Your task to perform on an android device: Open maps Image 0: 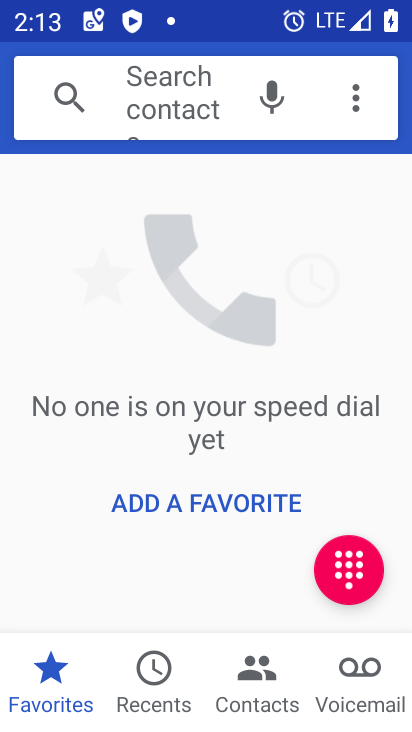
Step 0: drag from (221, 606) to (215, 349)
Your task to perform on an android device: Open maps Image 1: 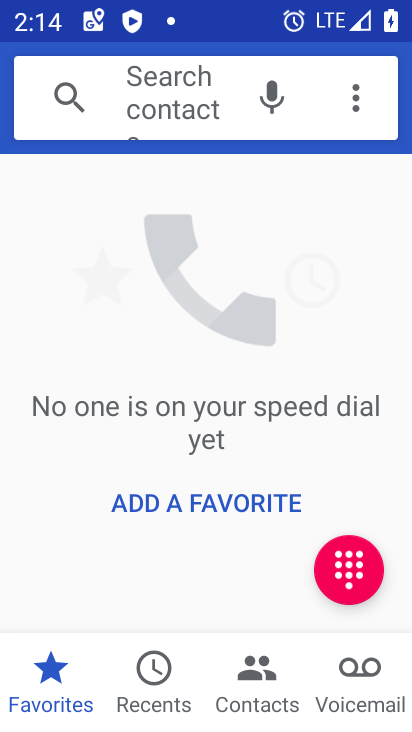
Step 1: press home button
Your task to perform on an android device: Open maps Image 2: 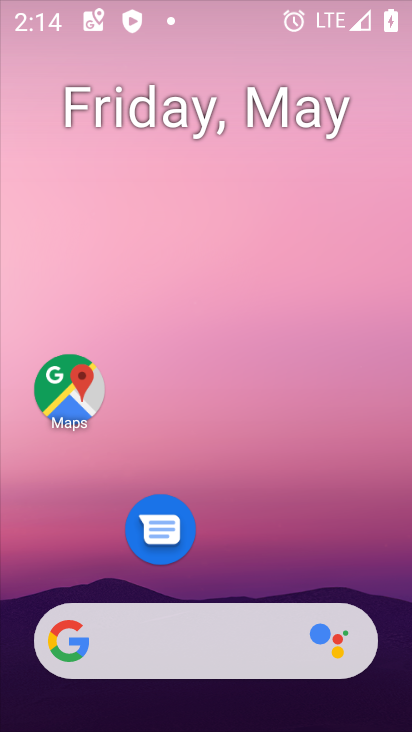
Step 2: drag from (211, 584) to (211, 134)
Your task to perform on an android device: Open maps Image 3: 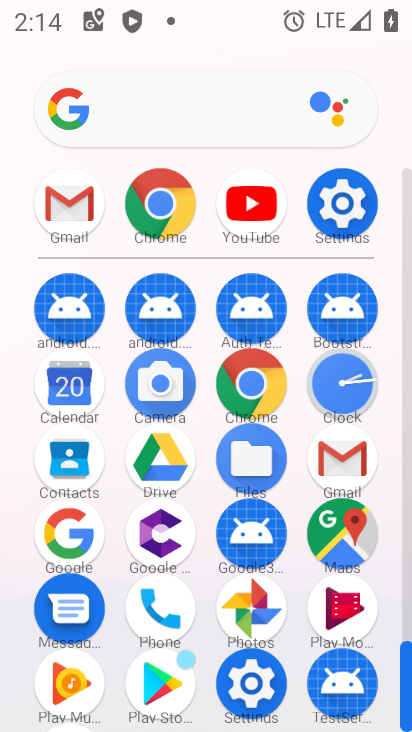
Step 3: drag from (205, 626) to (210, 363)
Your task to perform on an android device: Open maps Image 4: 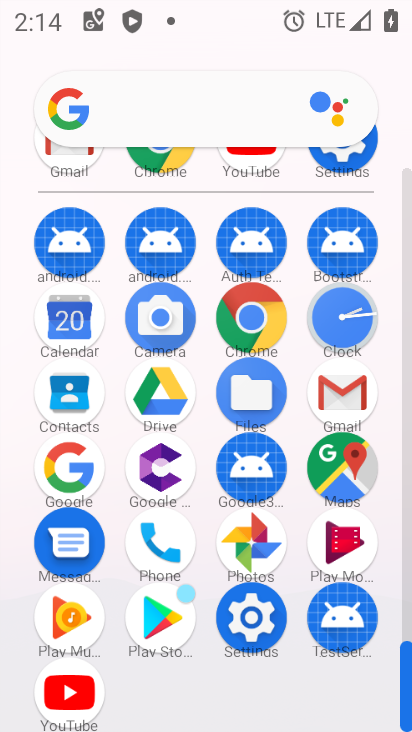
Step 4: click (348, 461)
Your task to perform on an android device: Open maps Image 5: 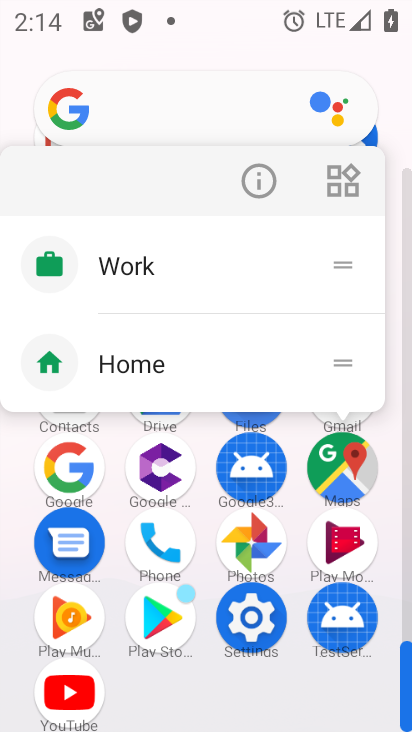
Step 5: click (266, 168)
Your task to perform on an android device: Open maps Image 6: 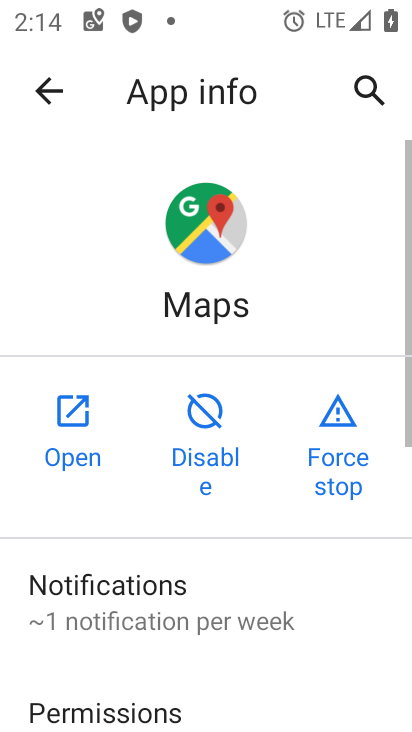
Step 6: click (46, 465)
Your task to perform on an android device: Open maps Image 7: 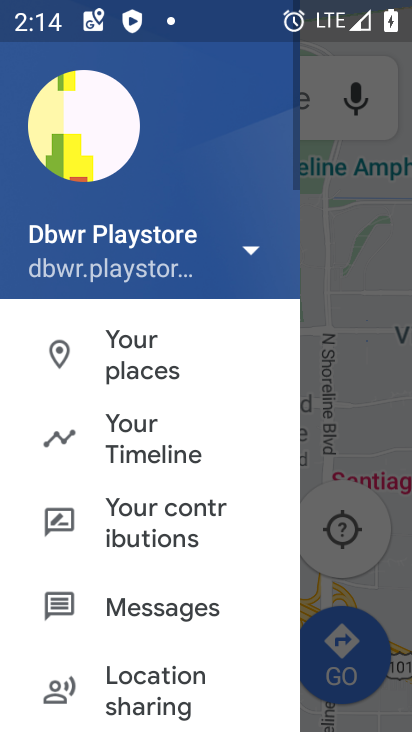
Step 7: task complete